Your task to perform on an android device: What's the weather like in Mexico City? Image 0: 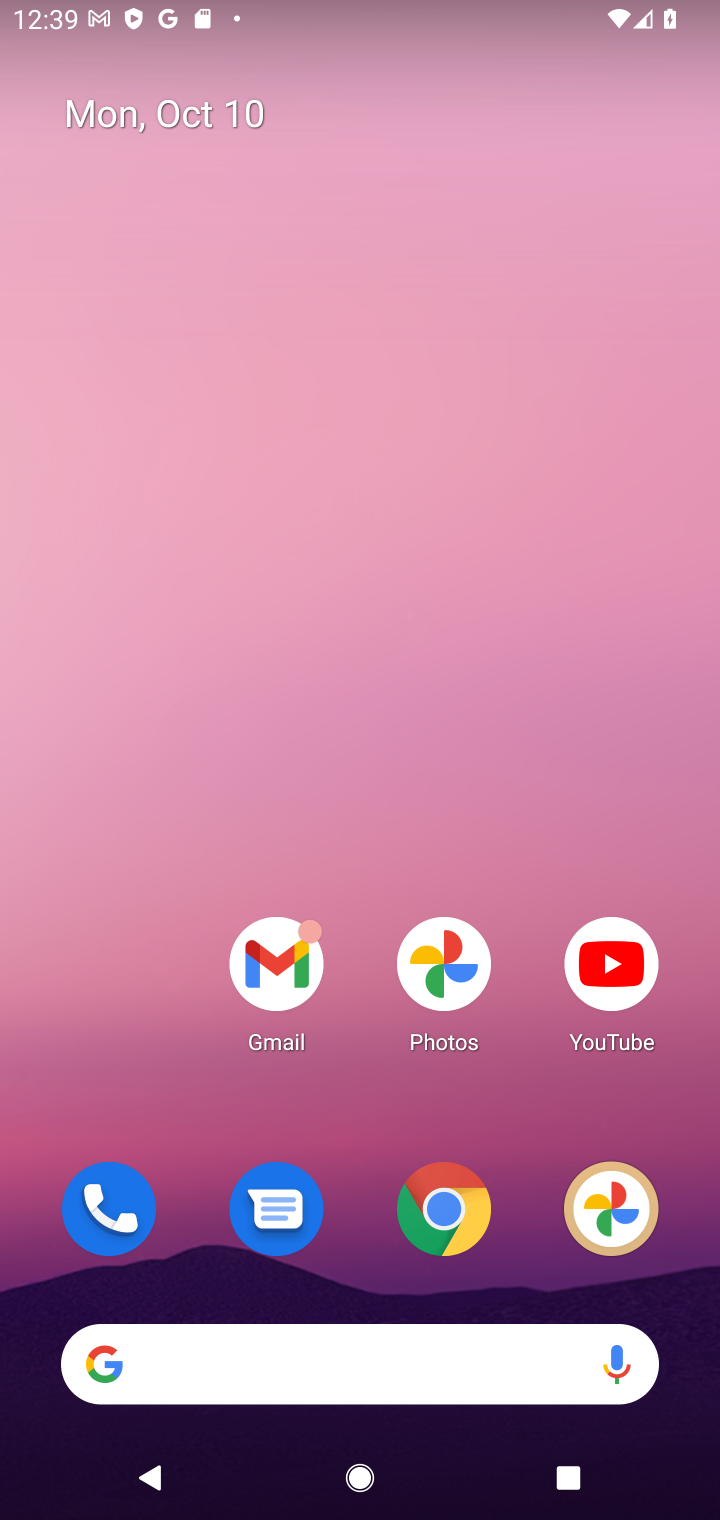
Step 0: drag from (386, 1320) to (498, 176)
Your task to perform on an android device: What's the weather like in Mexico City? Image 1: 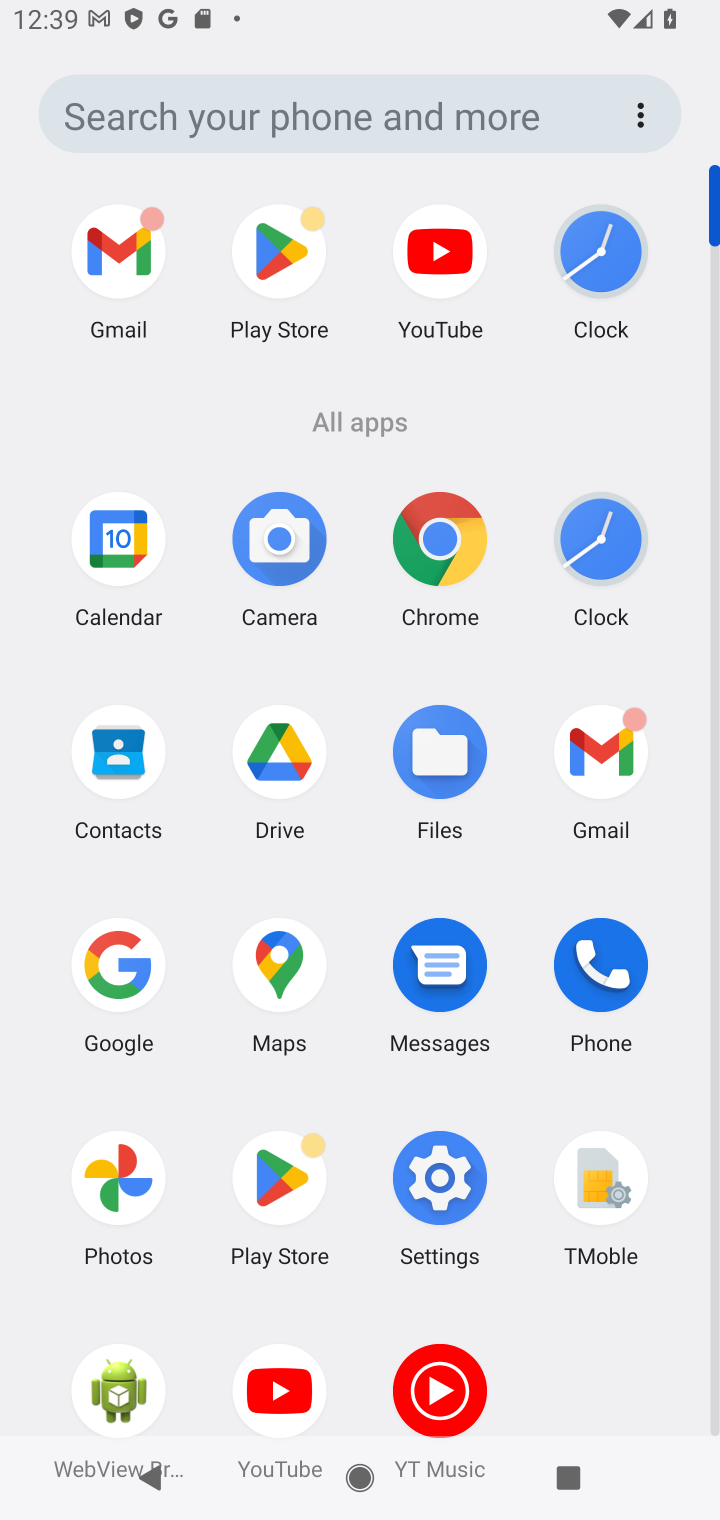
Step 1: click (112, 960)
Your task to perform on an android device: What's the weather like in Mexico City? Image 2: 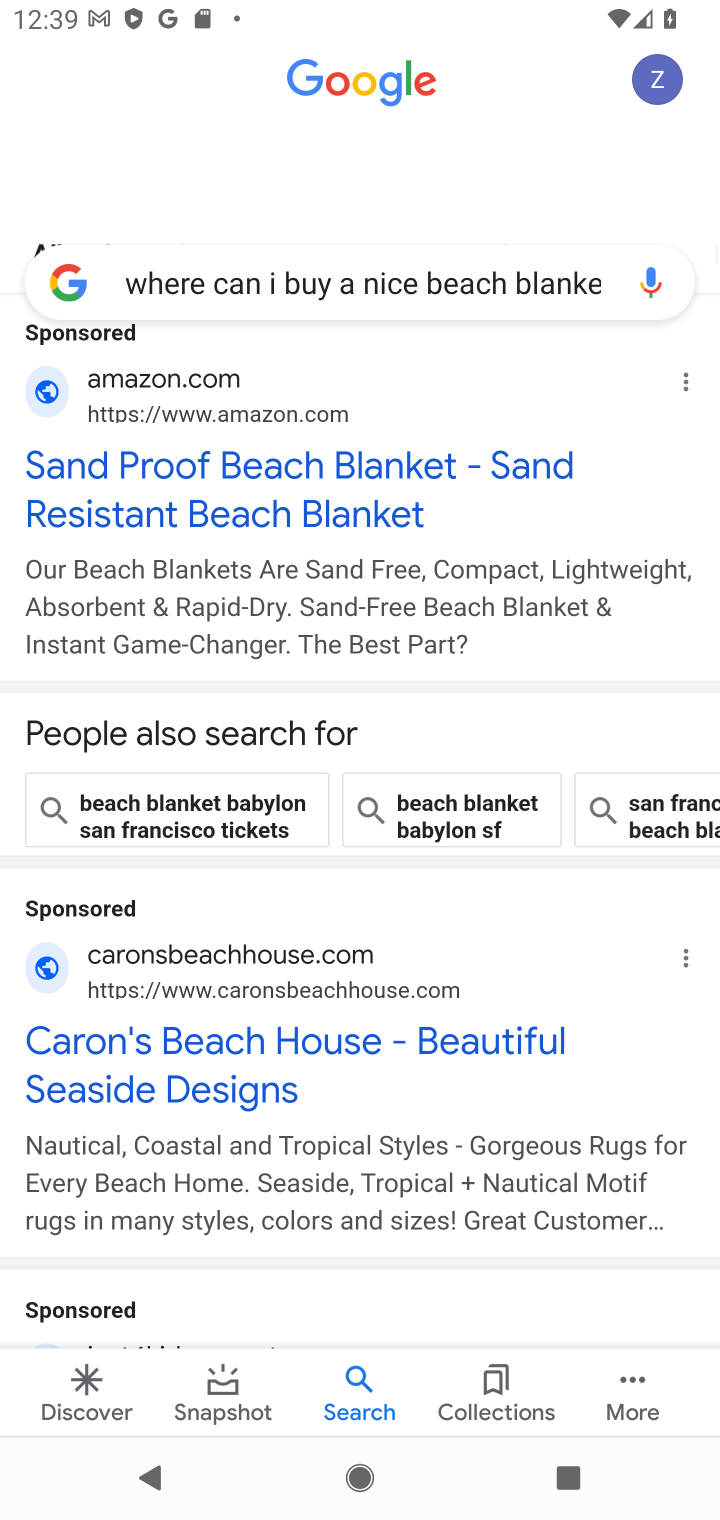
Step 2: click (341, 287)
Your task to perform on an android device: What's the weather like in Mexico City? Image 3: 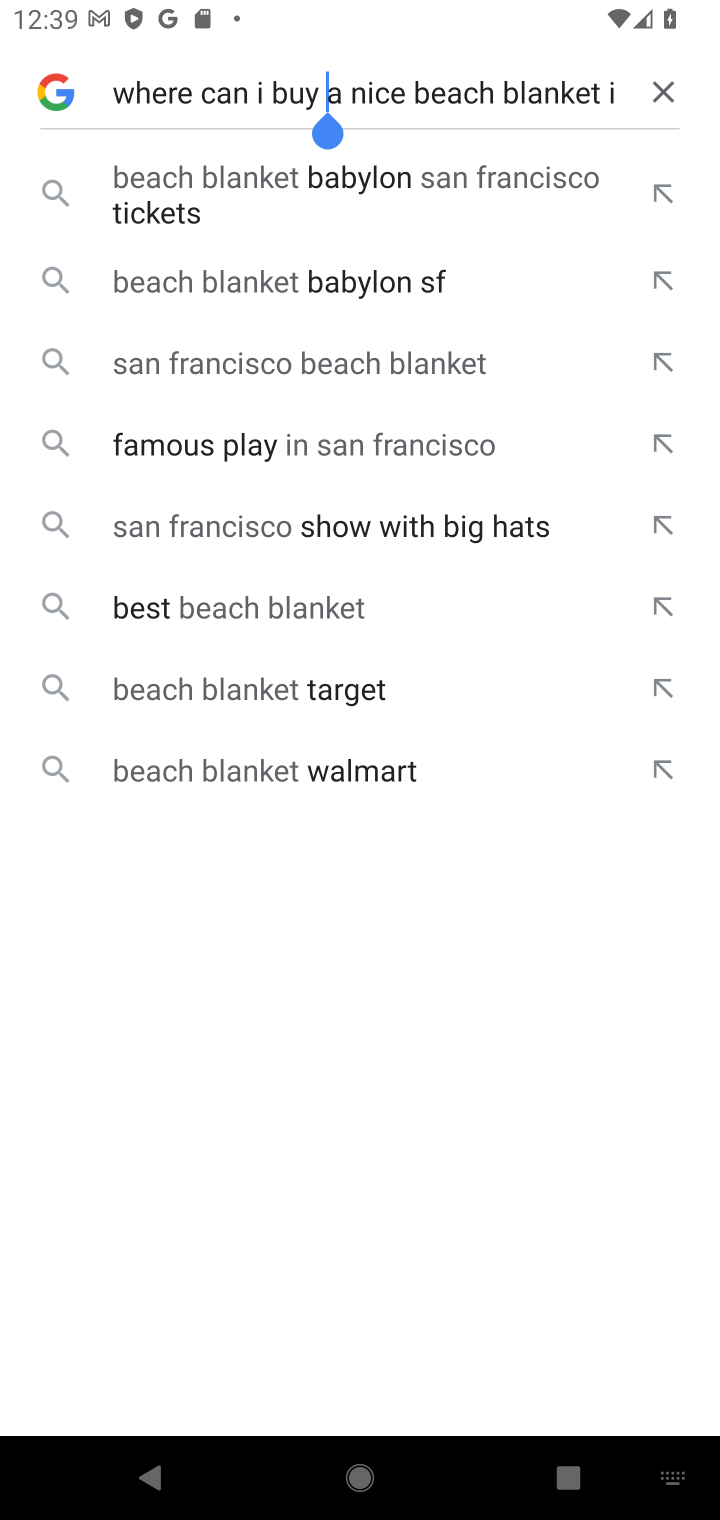
Step 3: click (663, 97)
Your task to perform on an android device: What's the weather like in Mexico City? Image 4: 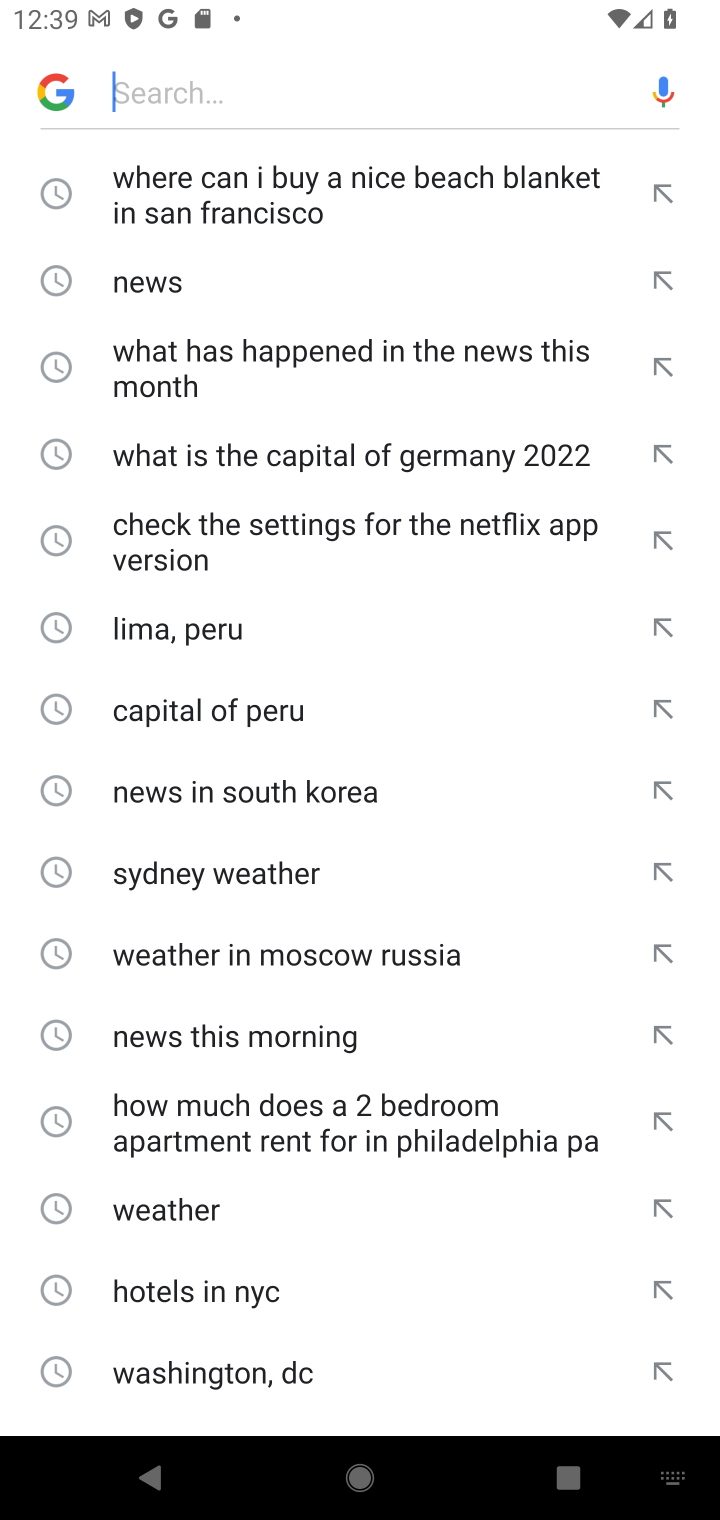
Step 4: type "What's the weather like in Mexico City?"
Your task to perform on an android device: What's the weather like in Mexico City? Image 5: 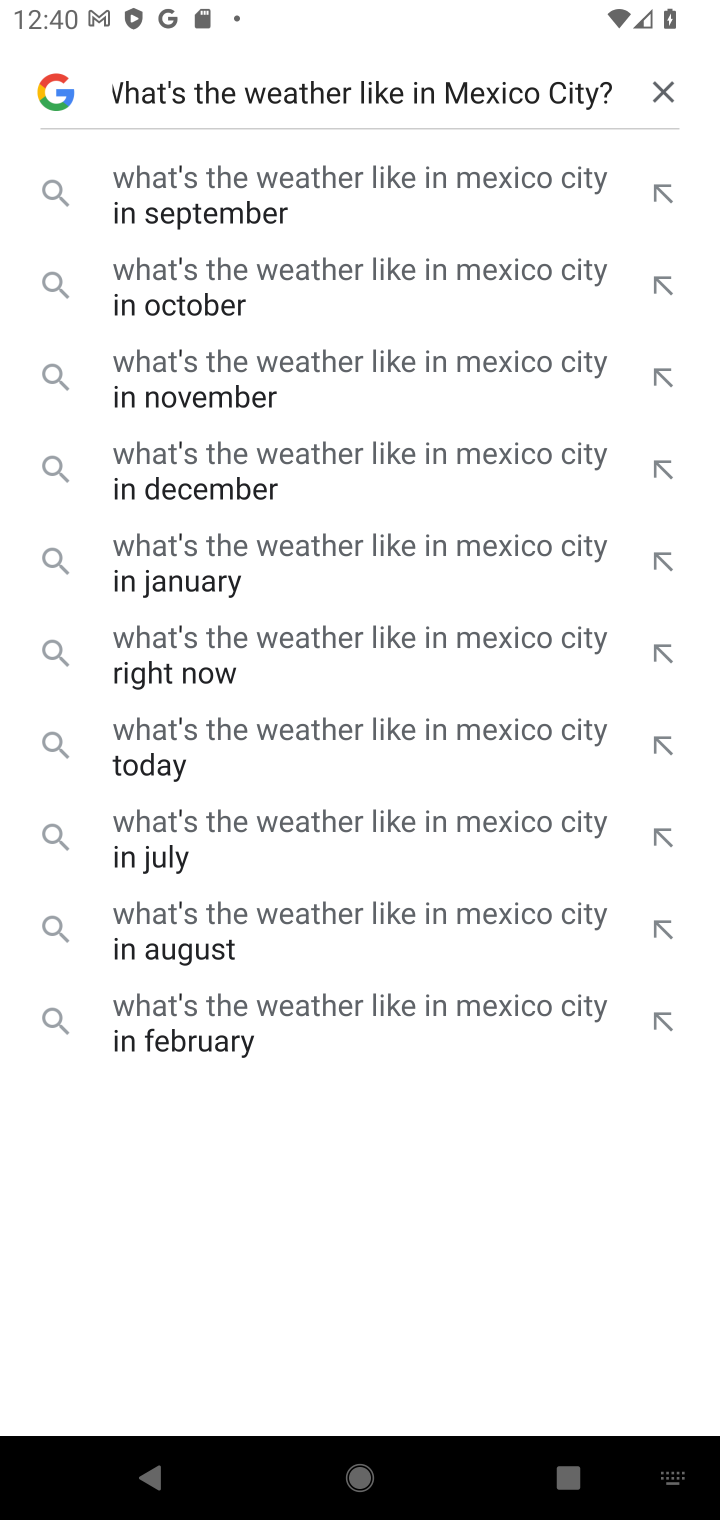
Step 5: click (262, 210)
Your task to perform on an android device: What's the weather like in Mexico City? Image 6: 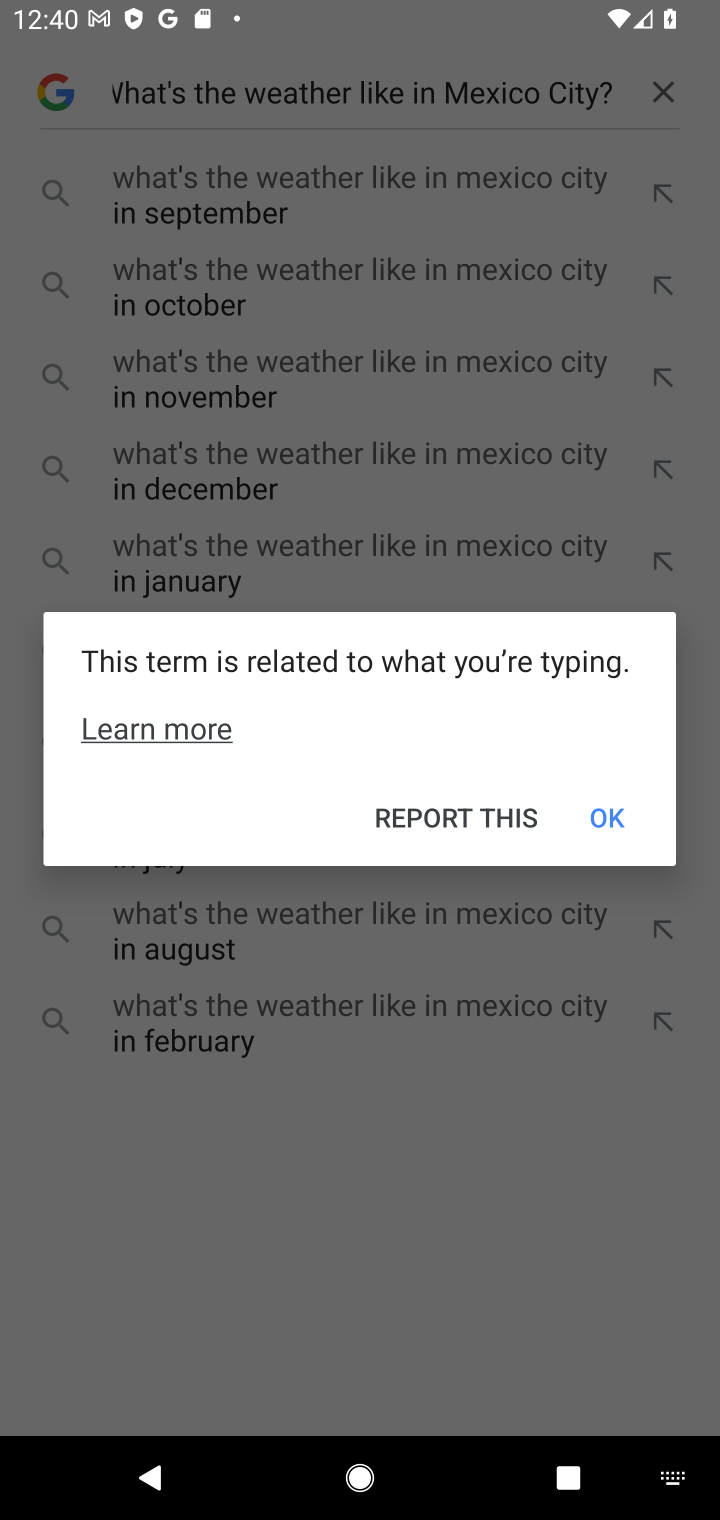
Step 6: click (617, 797)
Your task to perform on an android device: What's the weather like in Mexico City? Image 7: 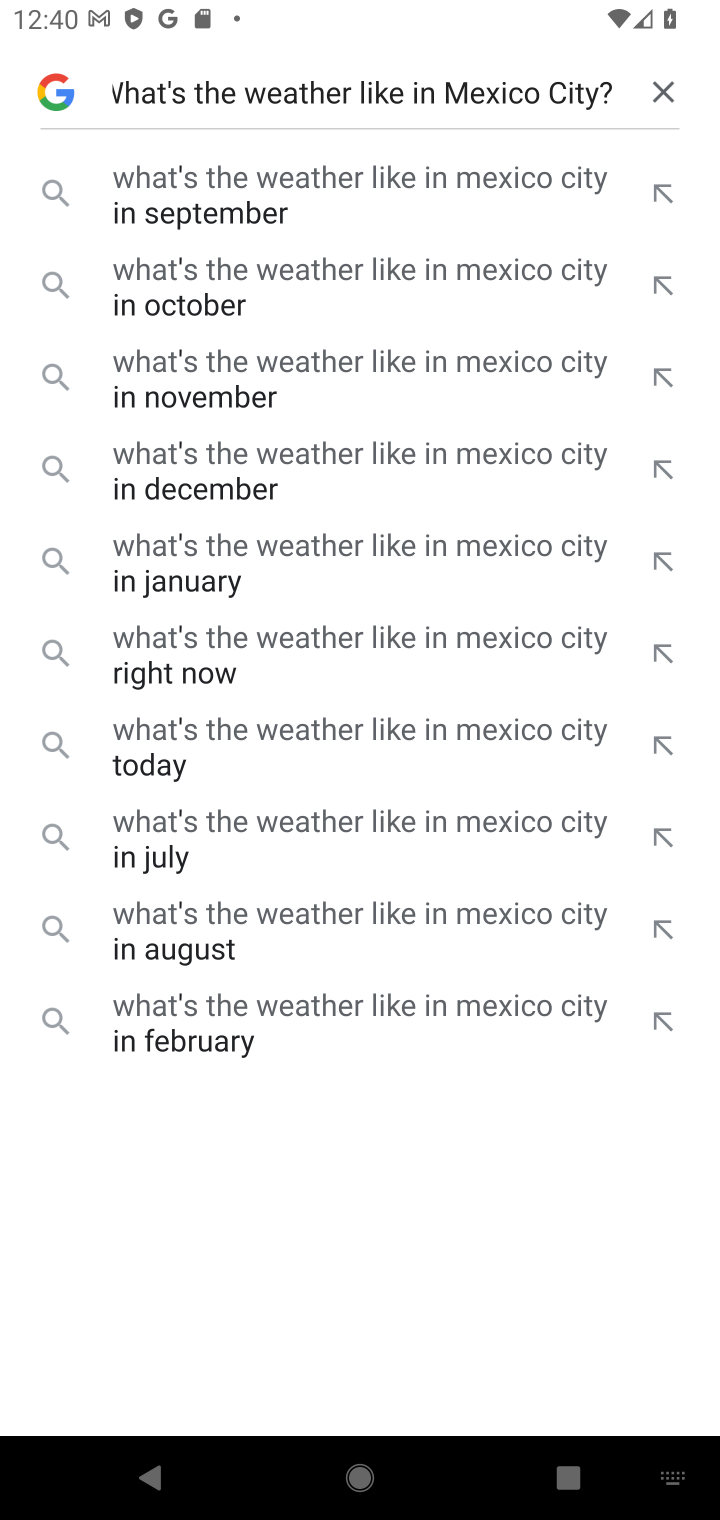
Step 7: click (380, 198)
Your task to perform on an android device: What's the weather like in Mexico City? Image 8: 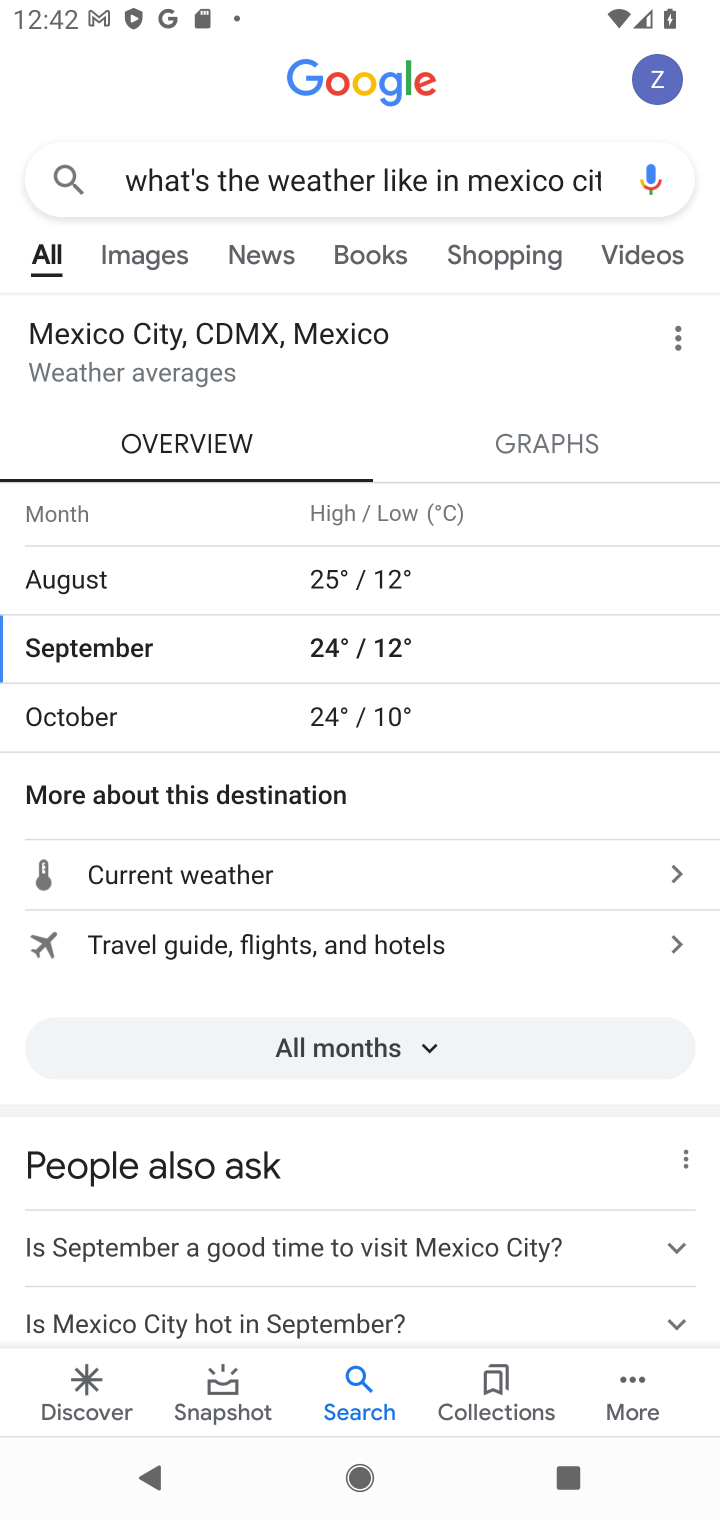
Step 8: task complete